Your task to perform on an android device: toggle airplane mode Image 0: 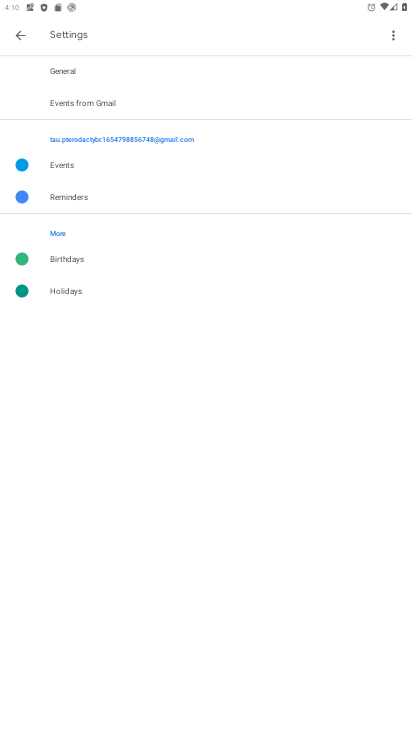
Step 0: press home button
Your task to perform on an android device: toggle airplane mode Image 1: 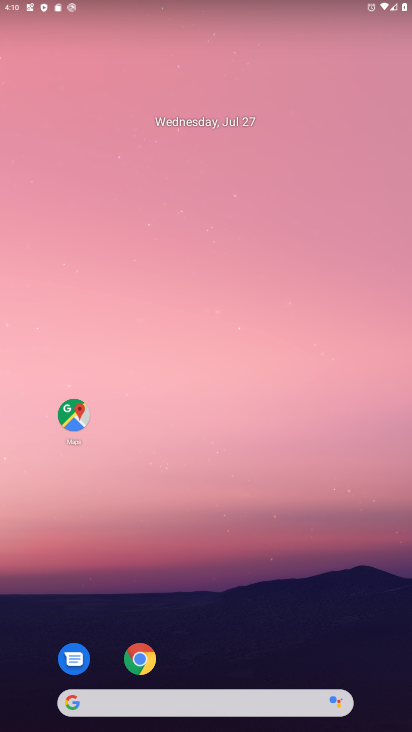
Step 1: drag from (302, 602) to (307, 15)
Your task to perform on an android device: toggle airplane mode Image 2: 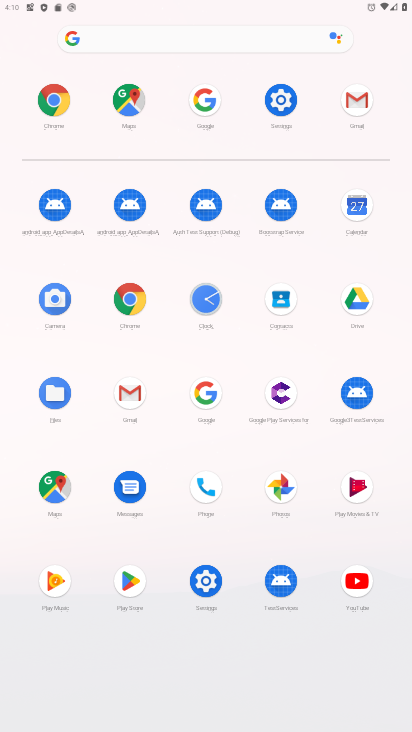
Step 2: click (278, 102)
Your task to perform on an android device: toggle airplane mode Image 3: 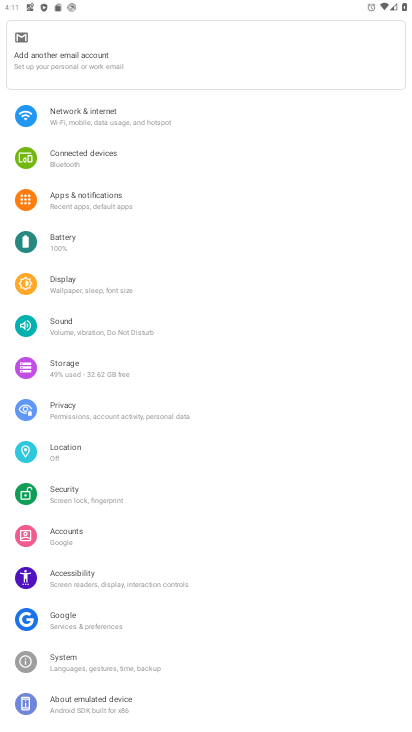
Step 3: click (152, 122)
Your task to perform on an android device: toggle airplane mode Image 4: 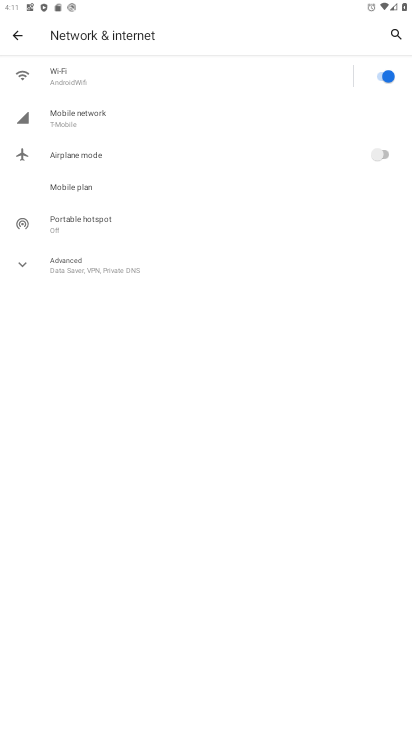
Step 4: click (374, 151)
Your task to perform on an android device: toggle airplane mode Image 5: 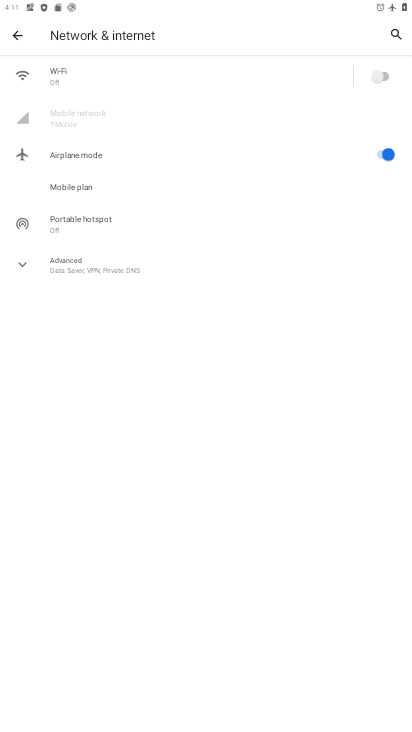
Step 5: task complete